Your task to perform on an android device: turn off notifications in google photos Image 0: 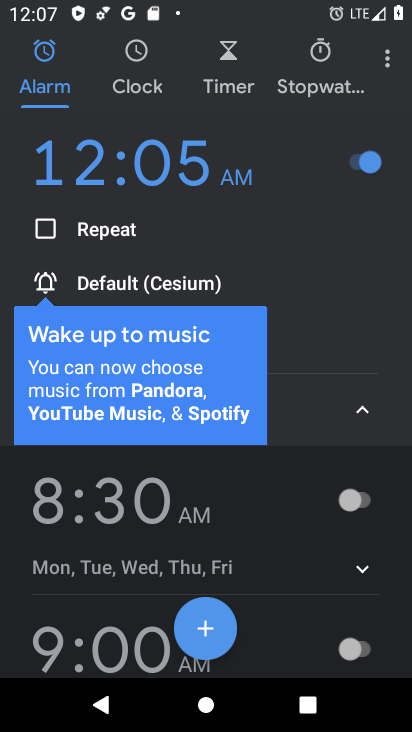
Step 0: press home button
Your task to perform on an android device: turn off notifications in google photos Image 1: 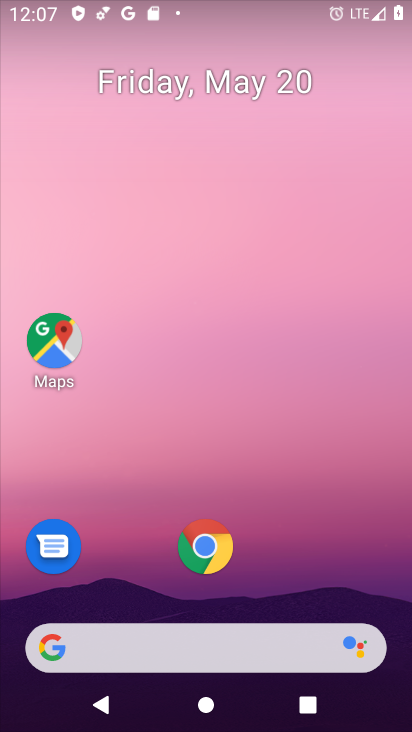
Step 1: drag from (313, 546) to (310, 88)
Your task to perform on an android device: turn off notifications in google photos Image 2: 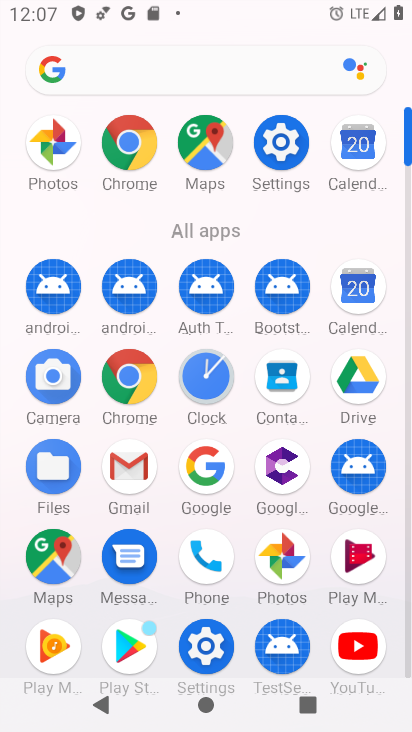
Step 2: click (286, 560)
Your task to perform on an android device: turn off notifications in google photos Image 3: 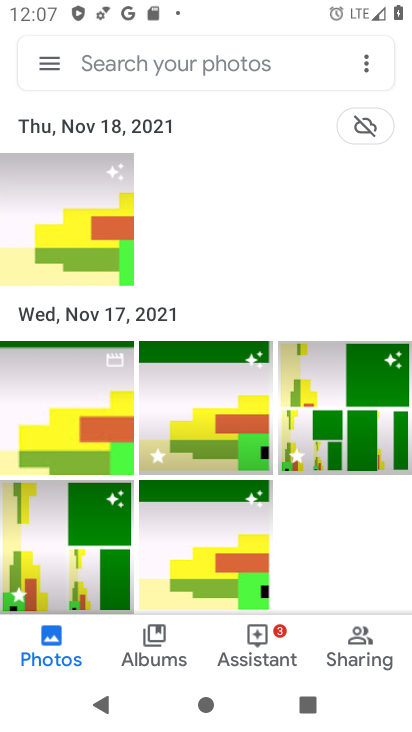
Step 3: click (43, 58)
Your task to perform on an android device: turn off notifications in google photos Image 4: 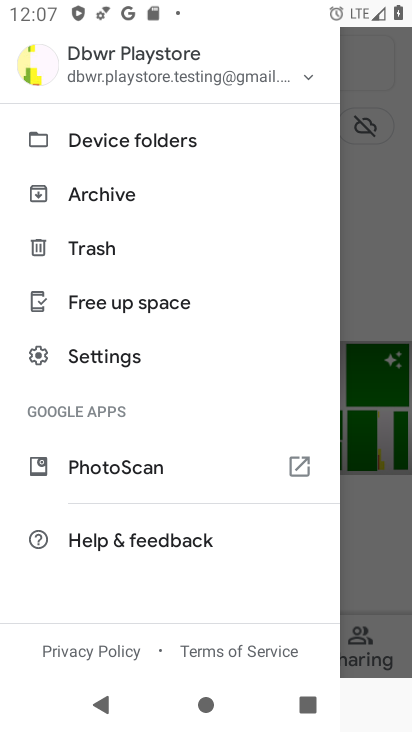
Step 4: click (127, 364)
Your task to perform on an android device: turn off notifications in google photos Image 5: 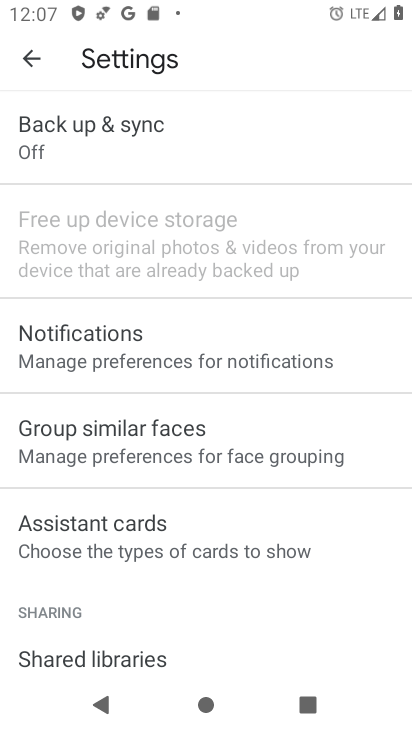
Step 5: click (216, 370)
Your task to perform on an android device: turn off notifications in google photos Image 6: 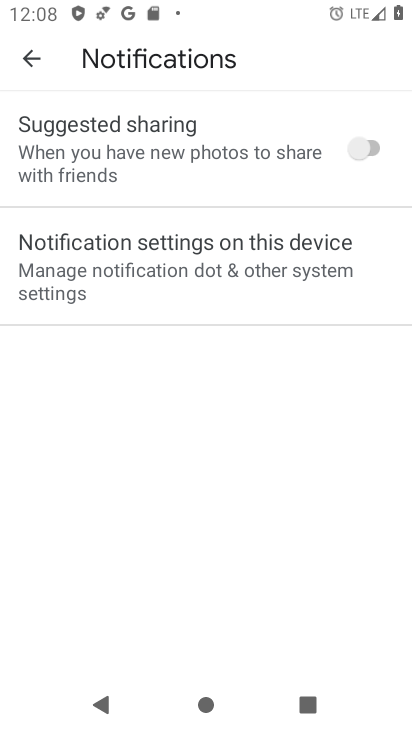
Step 6: click (176, 275)
Your task to perform on an android device: turn off notifications in google photos Image 7: 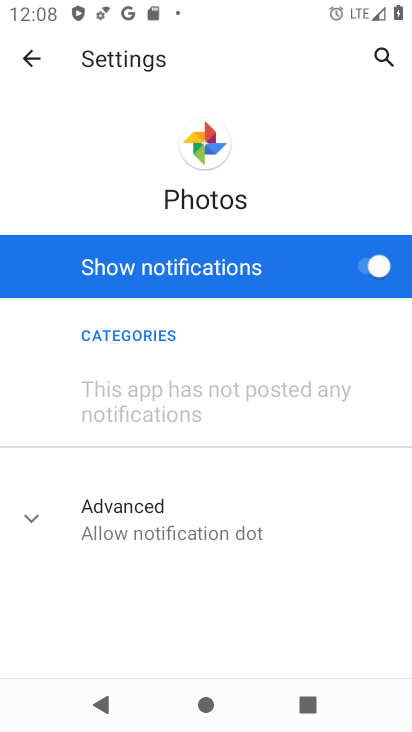
Step 7: click (329, 249)
Your task to perform on an android device: turn off notifications in google photos Image 8: 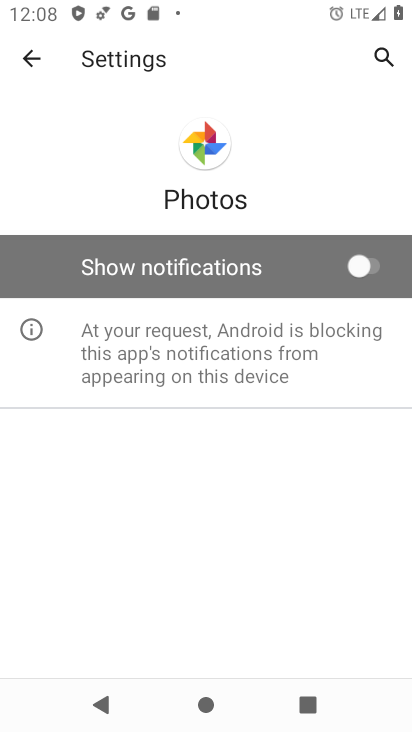
Step 8: task complete